Your task to perform on an android device: Add beats solo 3 to the cart on costco Image 0: 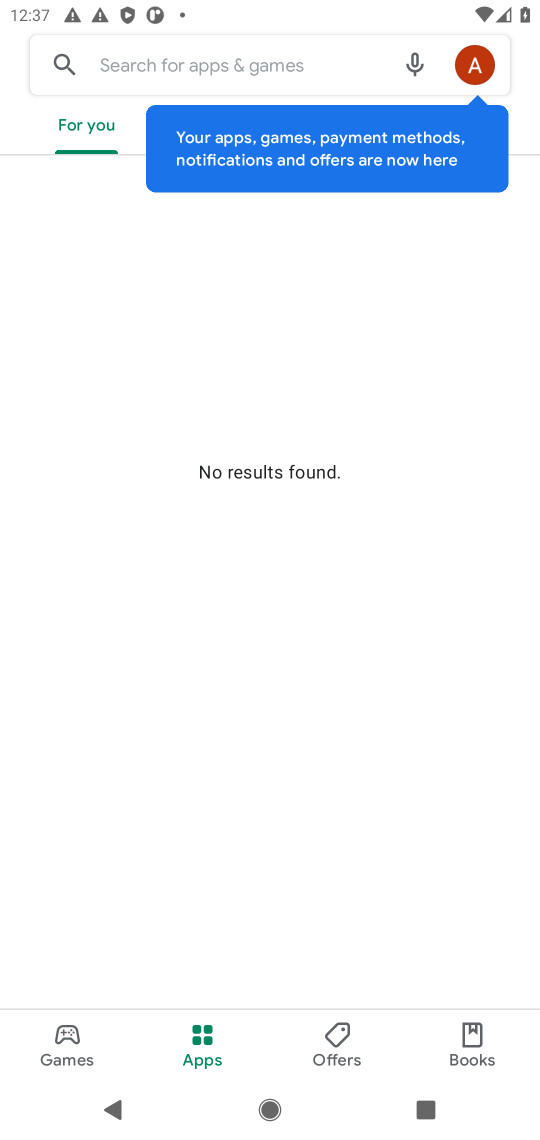
Step 0: press home button
Your task to perform on an android device: Add beats solo 3 to the cart on costco Image 1: 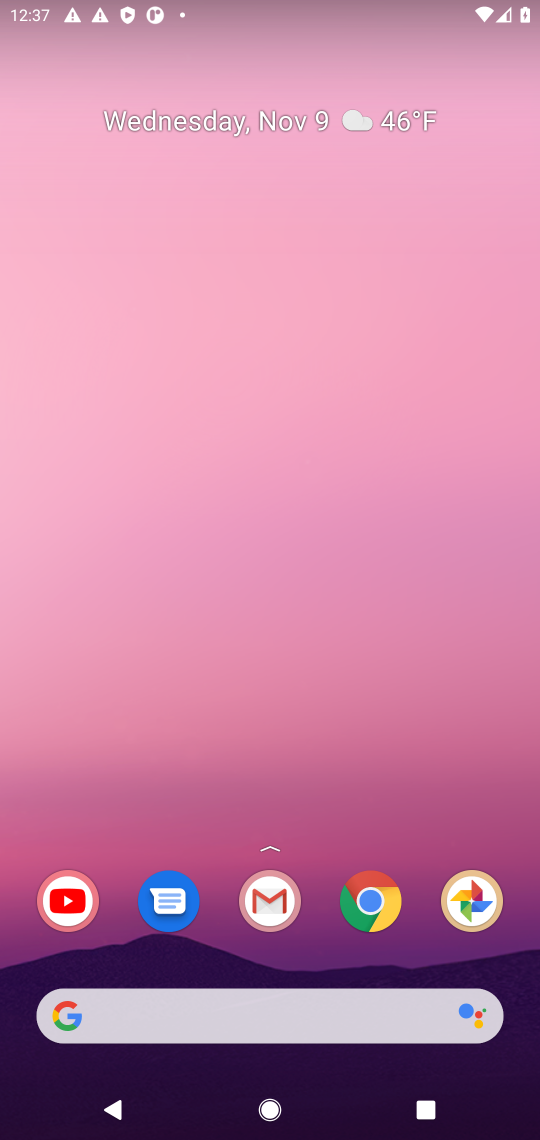
Step 1: click (379, 900)
Your task to perform on an android device: Add beats solo 3 to the cart on costco Image 2: 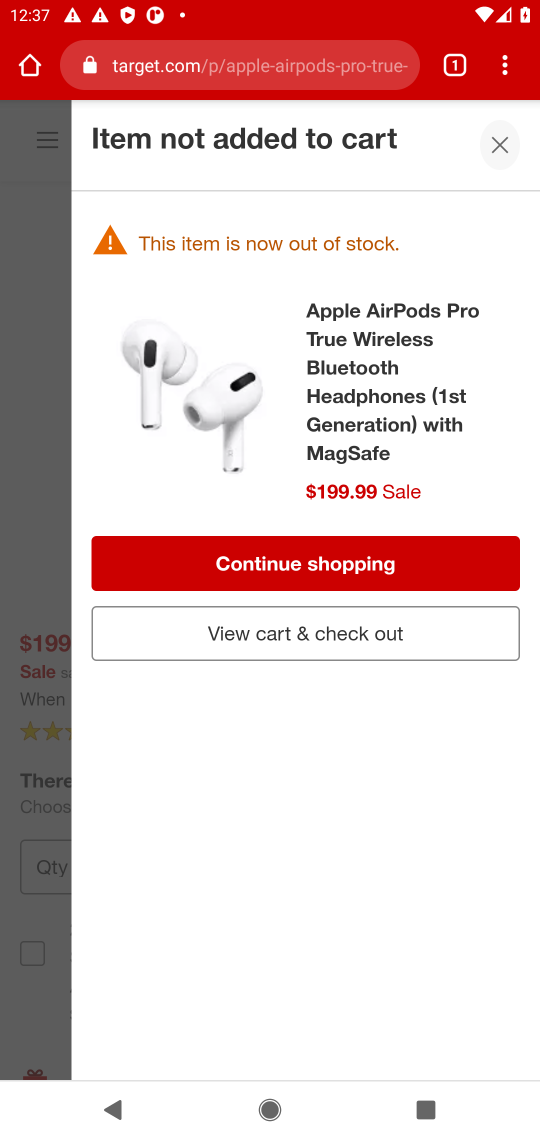
Step 2: click (229, 69)
Your task to perform on an android device: Add beats solo 3 to the cart on costco Image 3: 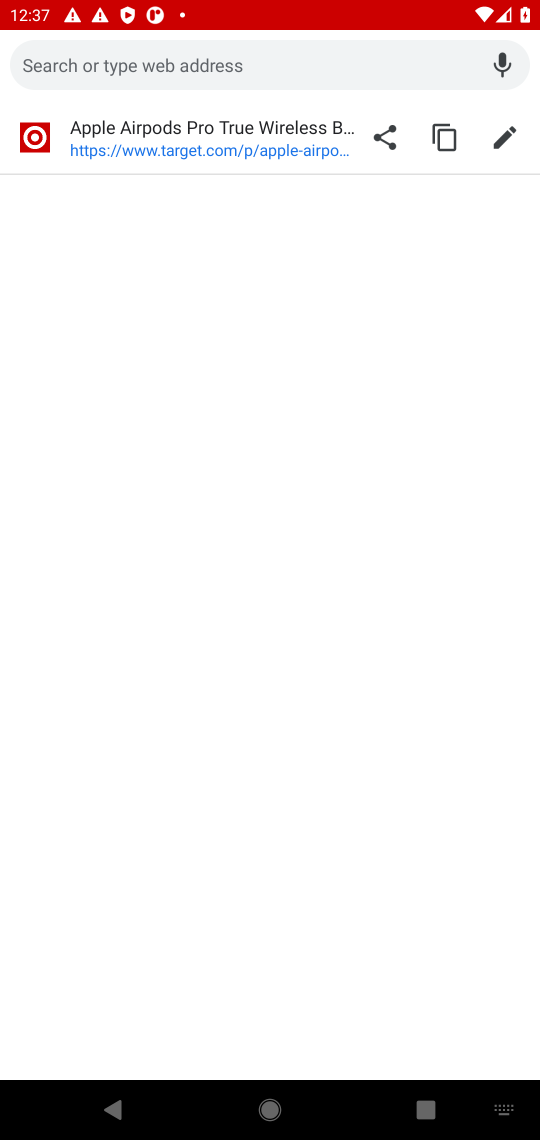
Step 3: type "costco"
Your task to perform on an android device: Add beats solo 3 to the cart on costco Image 4: 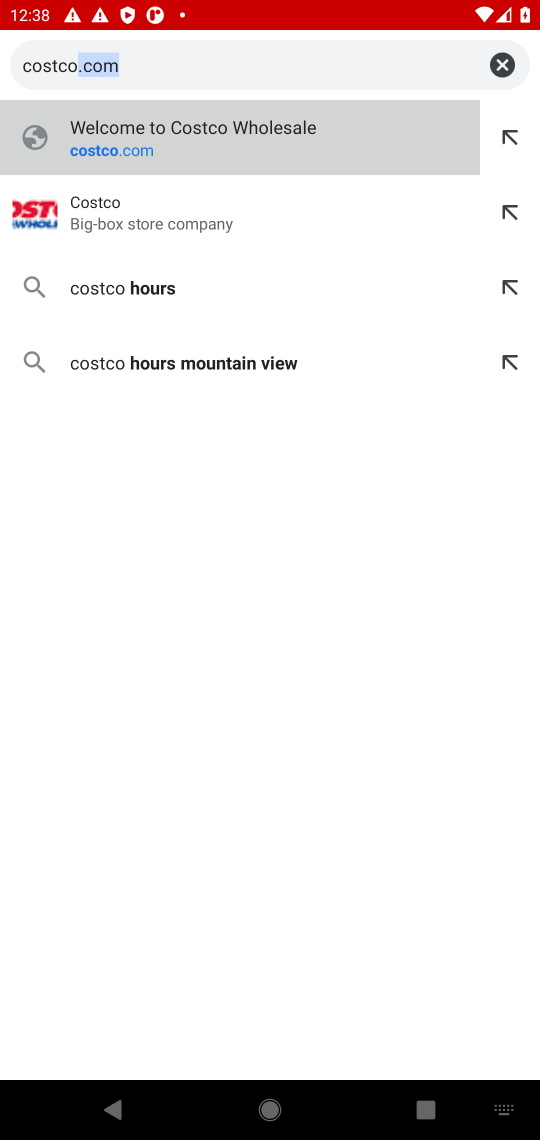
Step 4: click (254, 64)
Your task to perform on an android device: Add beats solo 3 to the cart on costco Image 5: 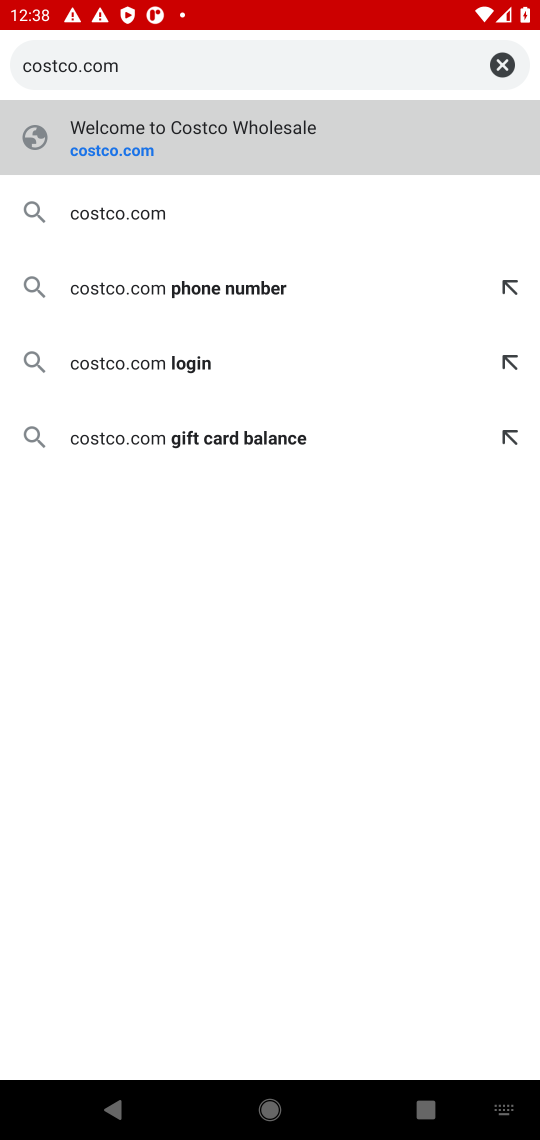
Step 5: click (158, 213)
Your task to perform on an android device: Add beats solo 3 to the cart on costco Image 6: 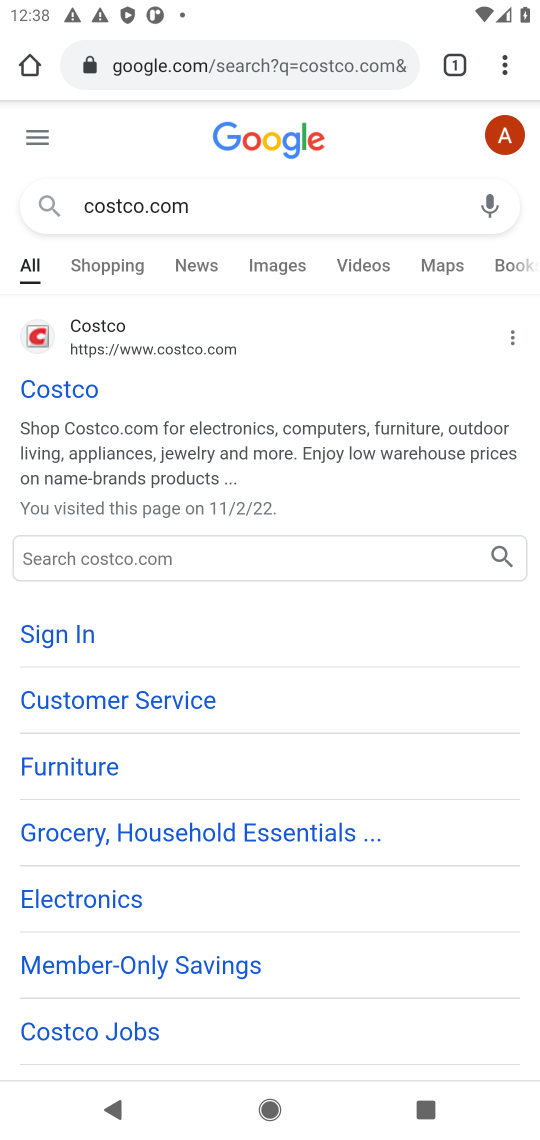
Step 6: click (165, 338)
Your task to perform on an android device: Add beats solo 3 to the cart on costco Image 7: 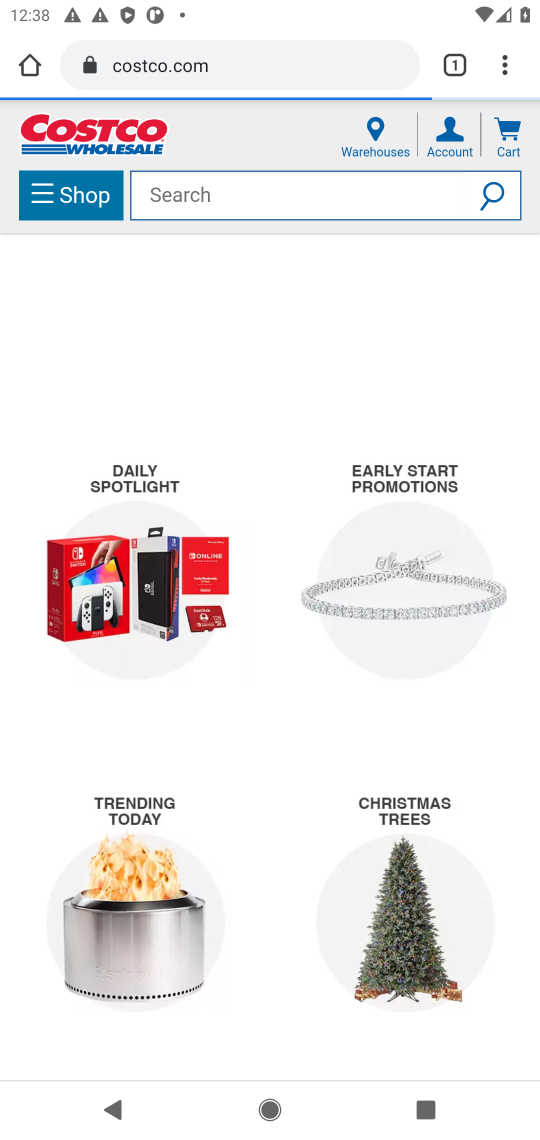
Step 7: click (357, 204)
Your task to perform on an android device: Add beats solo 3 to the cart on costco Image 8: 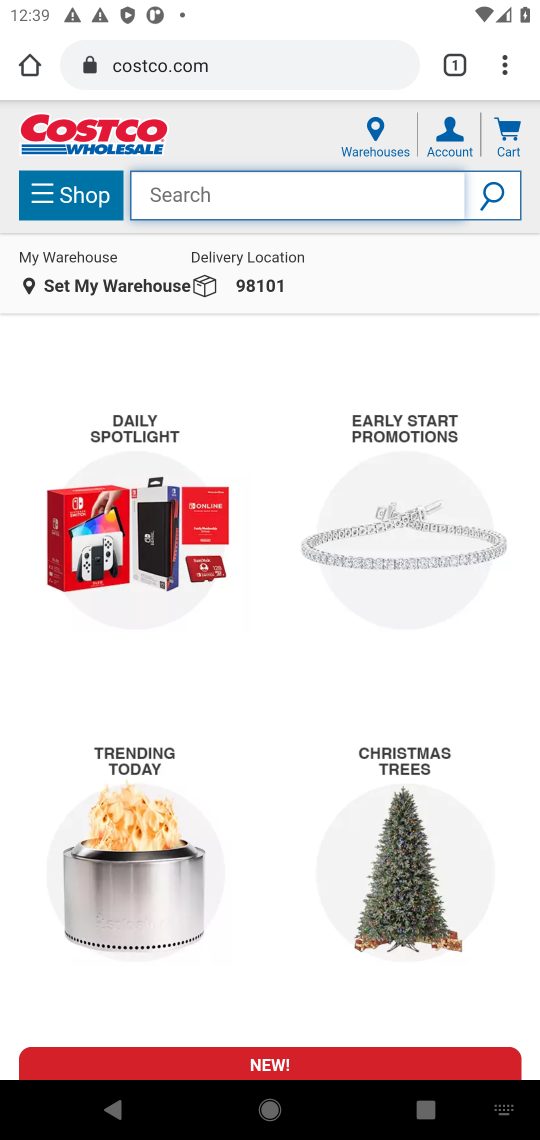
Step 8: type "beats solo 3"
Your task to perform on an android device: Add beats solo 3 to the cart on costco Image 9: 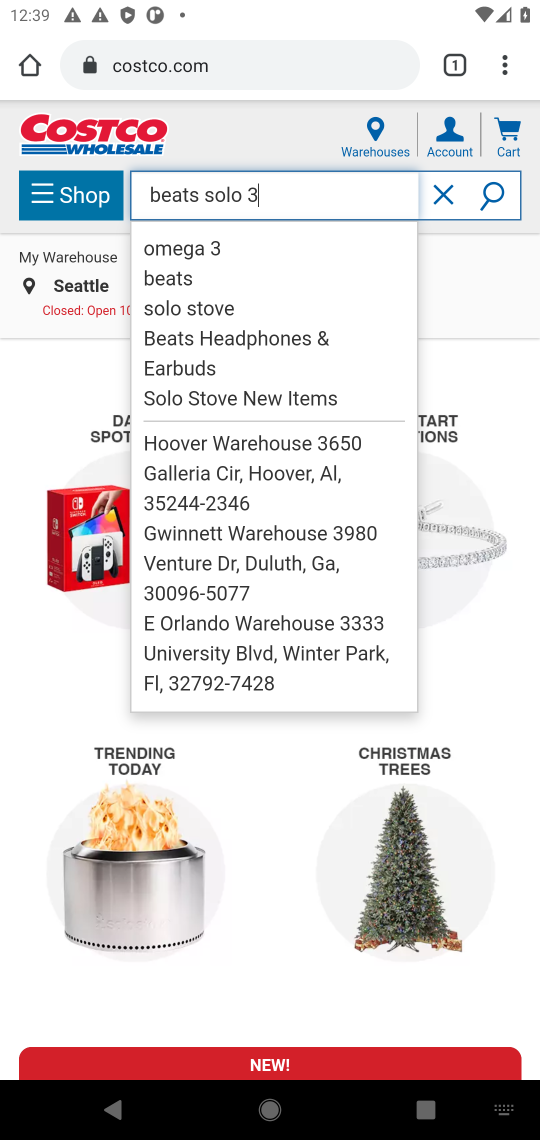
Step 9: click (492, 309)
Your task to perform on an android device: Add beats solo 3 to the cart on costco Image 10: 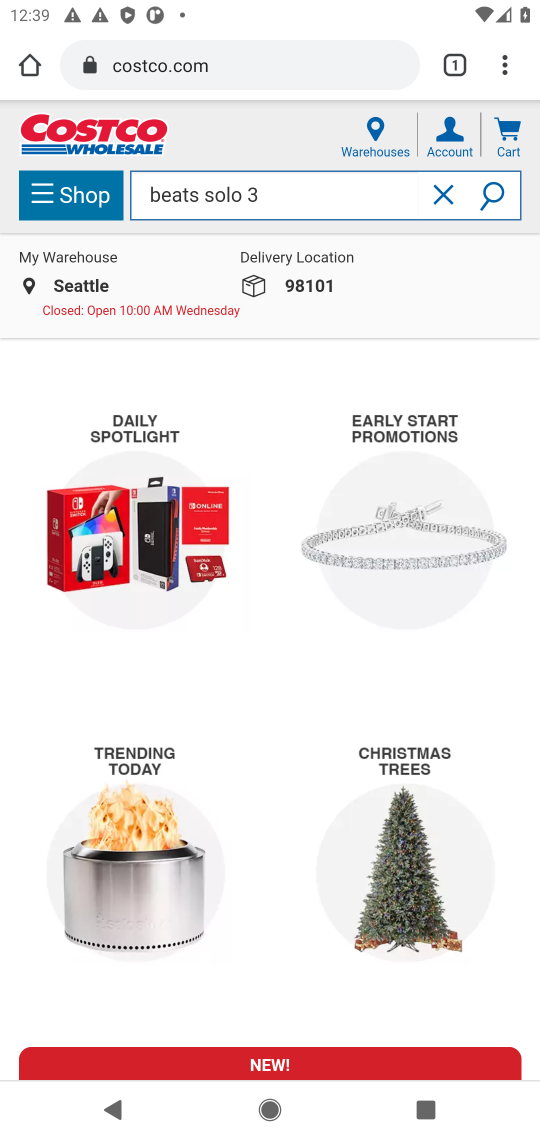
Step 10: click (483, 292)
Your task to perform on an android device: Add beats solo 3 to the cart on costco Image 11: 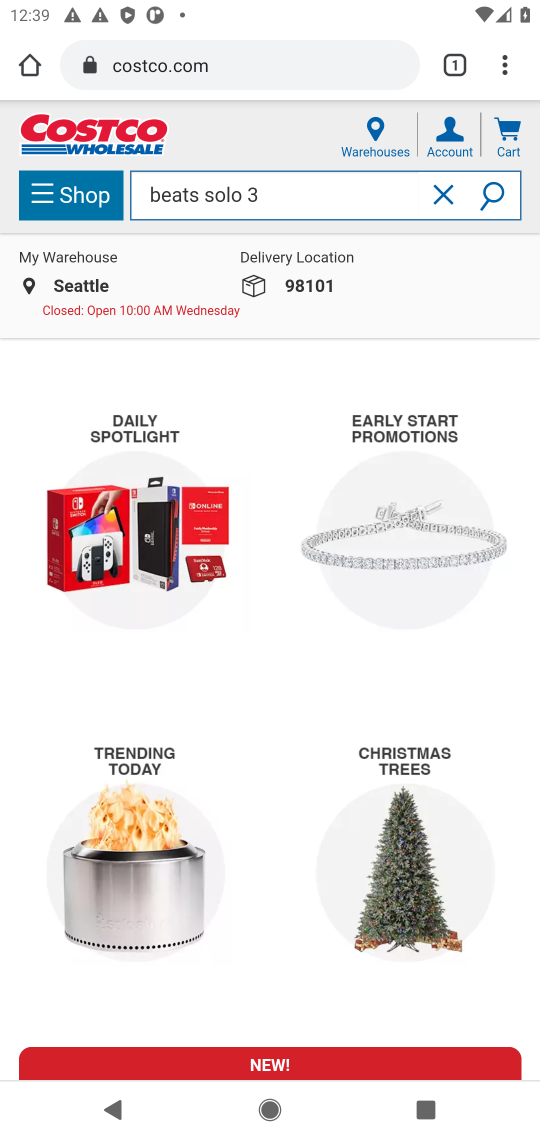
Step 11: task complete